Your task to perform on an android device: turn off translation in the chrome app Image 0: 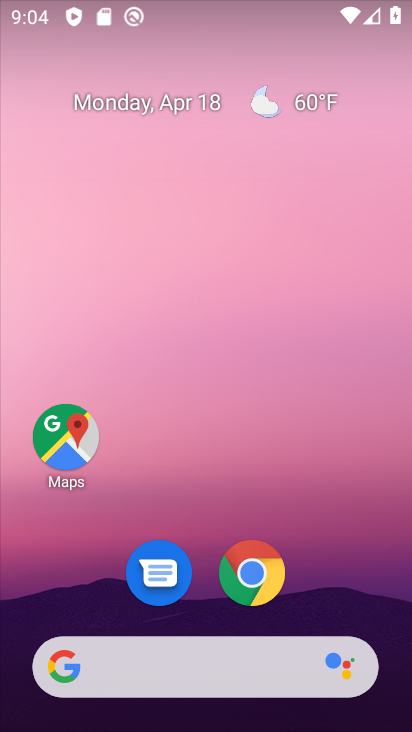
Step 0: click (252, 574)
Your task to perform on an android device: turn off translation in the chrome app Image 1: 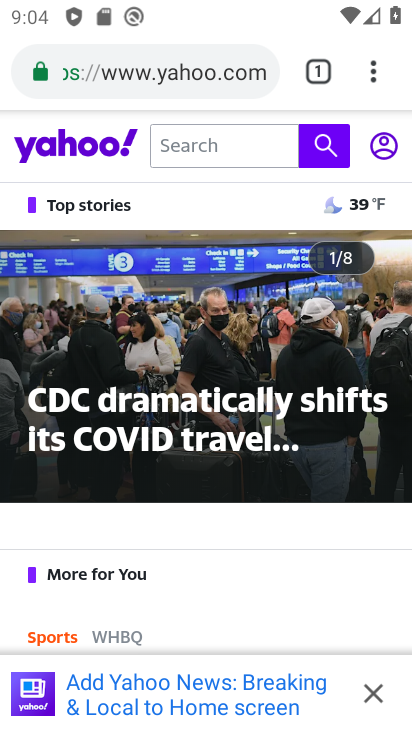
Step 1: click (373, 68)
Your task to perform on an android device: turn off translation in the chrome app Image 2: 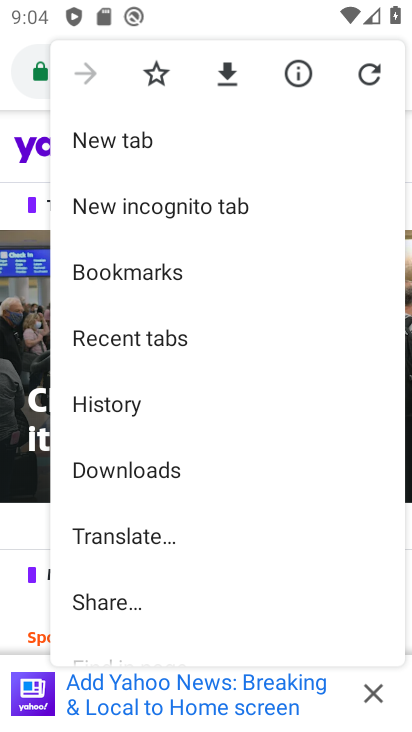
Step 2: drag from (165, 612) to (168, 248)
Your task to perform on an android device: turn off translation in the chrome app Image 3: 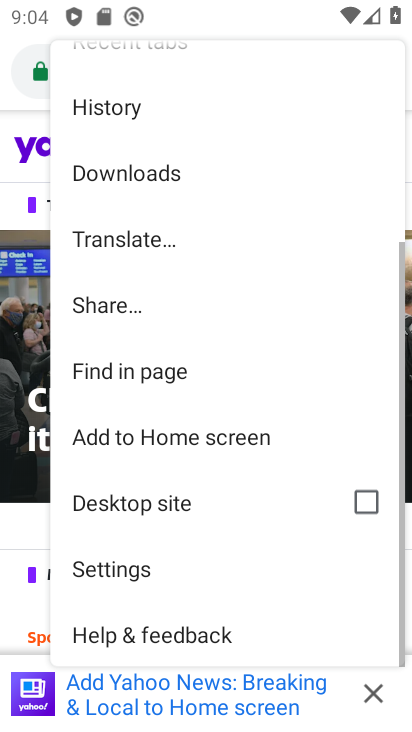
Step 3: click (131, 569)
Your task to perform on an android device: turn off translation in the chrome app Image 4: 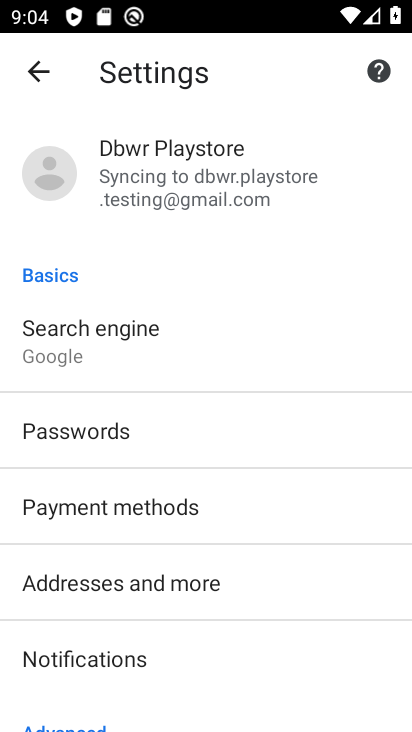
Step 4: drag from (157, 661) to (167, 269)
Your task to perform on an android device: turn off translation in the chrome app Image 5: 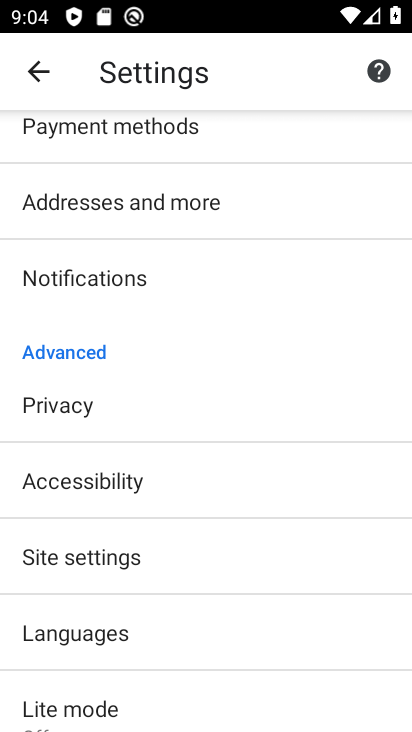
Step 5: click (105, 636)
Your task to perform on an android device: turn off translation in the chrome app Image 6: 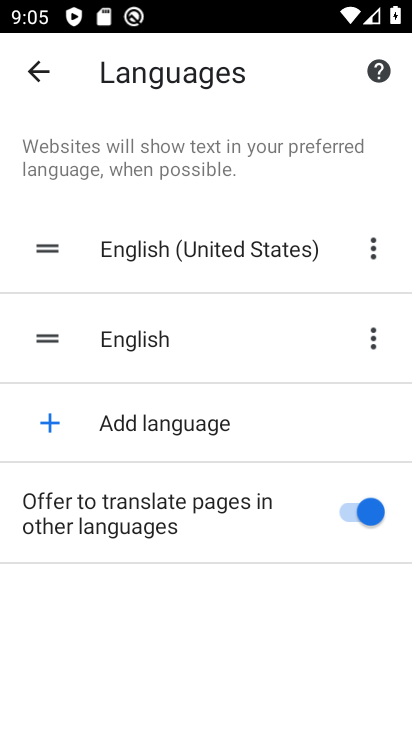
Step 6: click (352, 511)
Your task to perform on an android device: turn off translation in the chrome app Image 7: 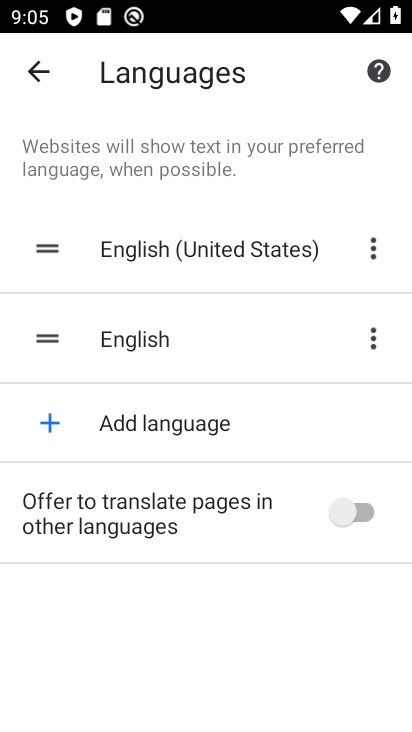
Step 7: task complete